Your task to perform on an android device: Search for Mexican restaurants on Maps Image 0: 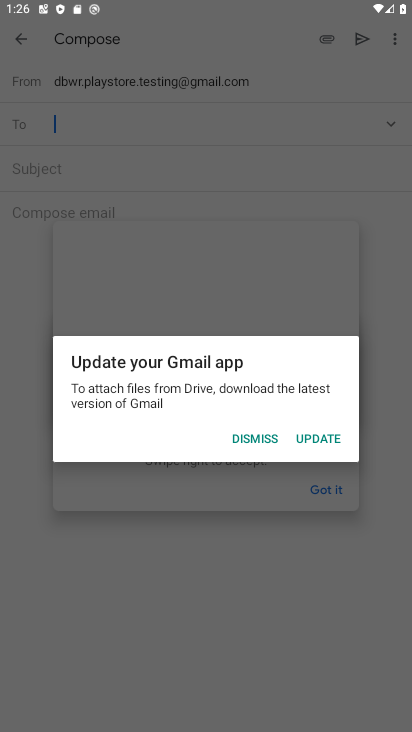
Step 0: press back button
Your task to perform on an android device: Search for Mexican restaurants on Maps Image 1: 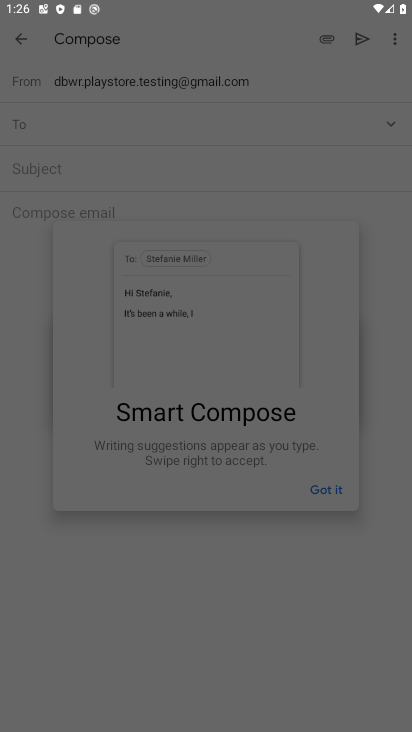
Step 1: press back button
Your task to perform on an android device: Search for Mexican restaurants on Maps Image 2: 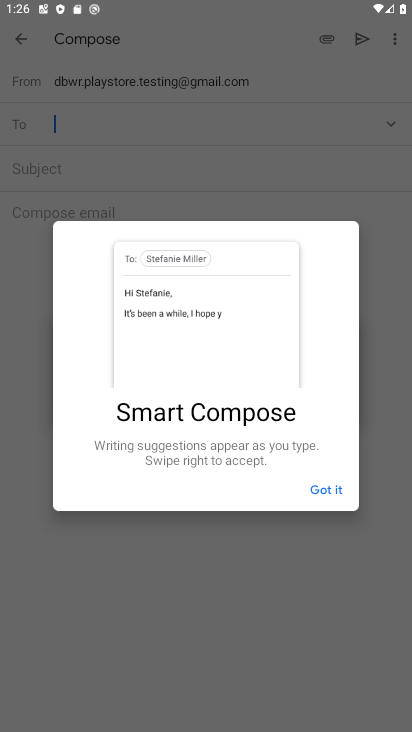
Step 2: press home button
Your task to perform on an android device: Search for Mexican restaurants on Maps Image 3: 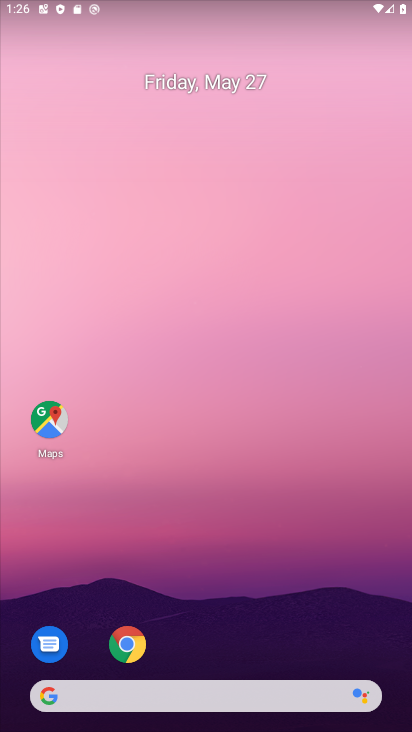
Step 3: drag from (246, 613) to (213, 29)
Your task to perform on an android device: Search for Mexican restaurants on Maps Image 4: 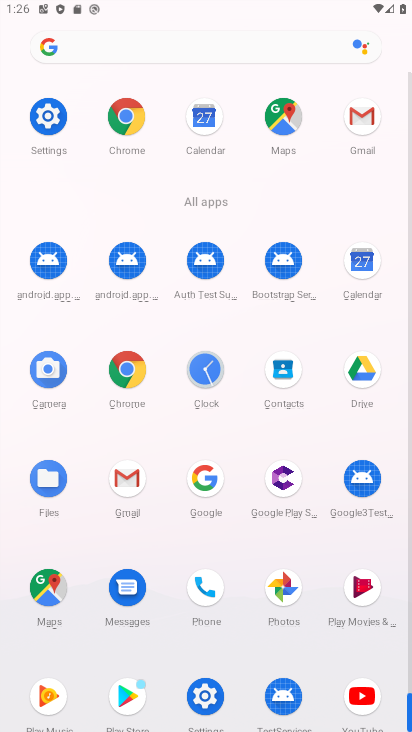
Step 4: drag from (7, 524) to (7, 208)
Your task to perform on an android device: Search for Mexican restaurants on Maps Image 5: 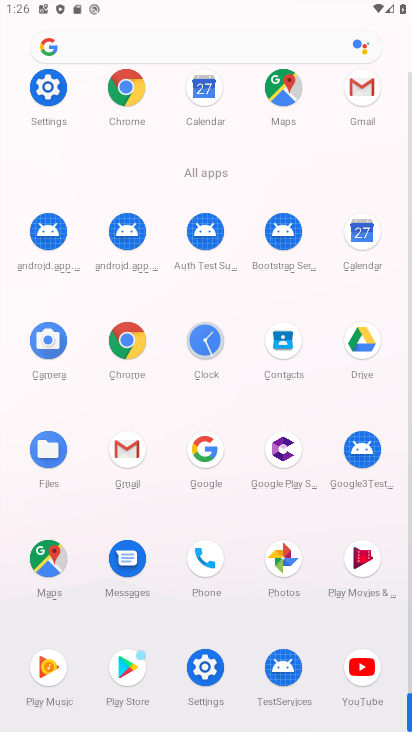
Step 5: click (45, 560)
Your task to perform on an android device: Search for Mexican restaurants on Maps Image 6: 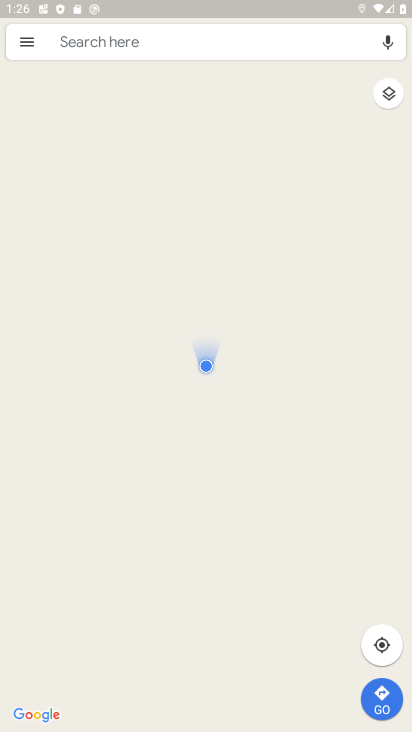
Step 6: click (195, 43)
Your task to perform on an android device: Search for Mexican restaurants on Maps Image 7: 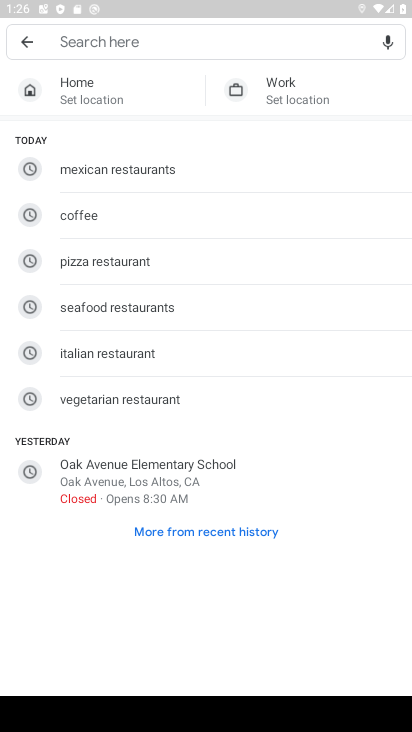
Step 7: click (136, 174)
Your task to perform on an android device: Search for Mexican restaurants on Maps Image 8: 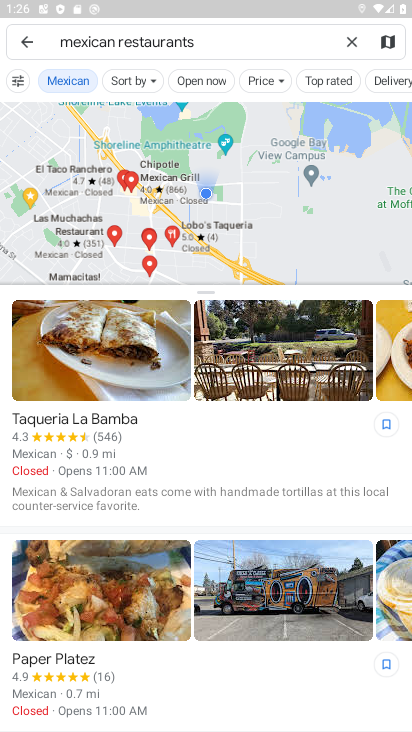
Step 8: task complete